Your task to perform on an android device: turn on data saver in the chrome app Image 0: 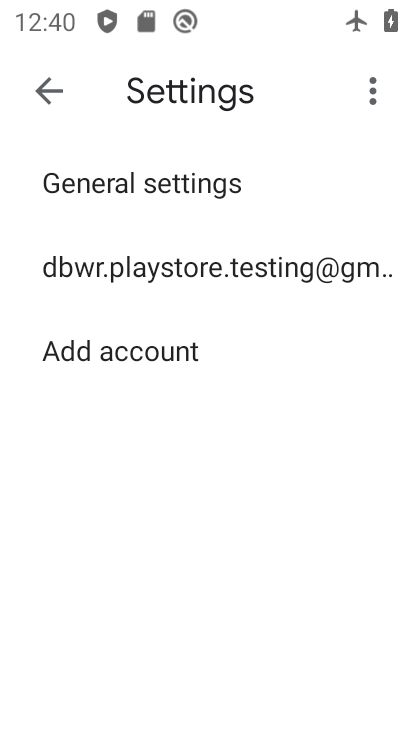
Step 0: click (28, 77)
Your task to perform on an android device: turn on data saver in the chrome app Image 1: 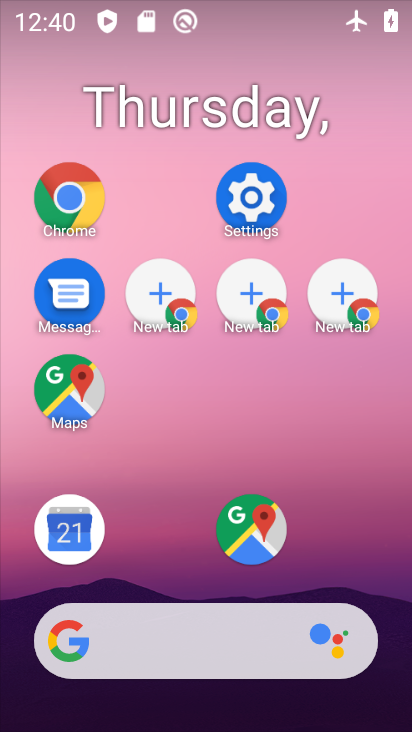
Step 1: drag from (226, 525) to (19, 83)
Your task to perform on an android device: turn on data saver in the chrome app Image 2: 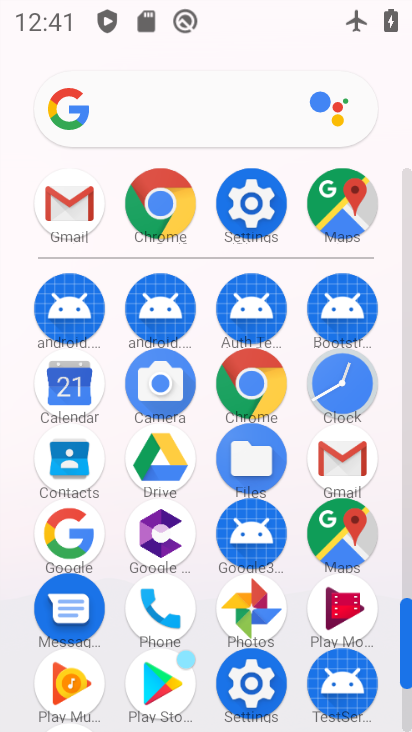
Step 2: click (241, 377)
Your task to perform on an android device: turn on data saver in the chrome app Image 3: 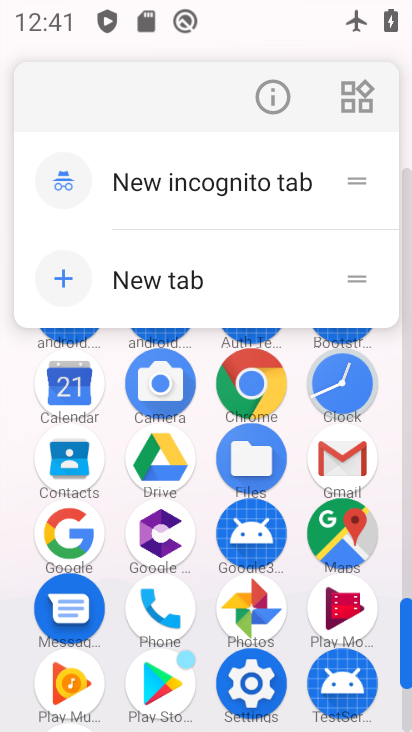
Step 3: click (161, 280)
Your task to perform on an android device: turn on data saver in the chrome app Image 4: 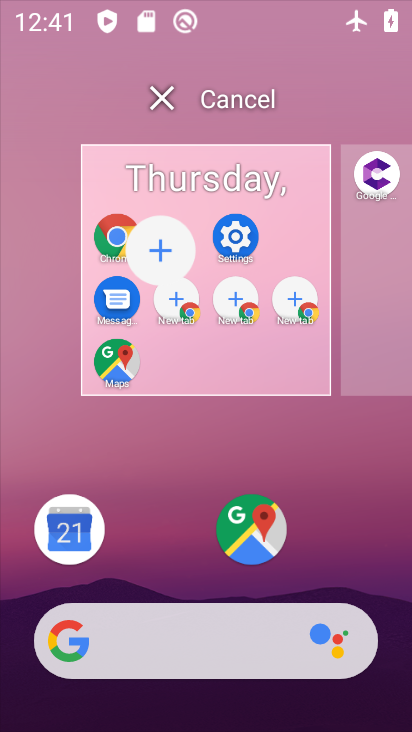
Step 4: click (161, 280)
Your task to perform on an android device: turn on data saver in the chrome app Image 5: 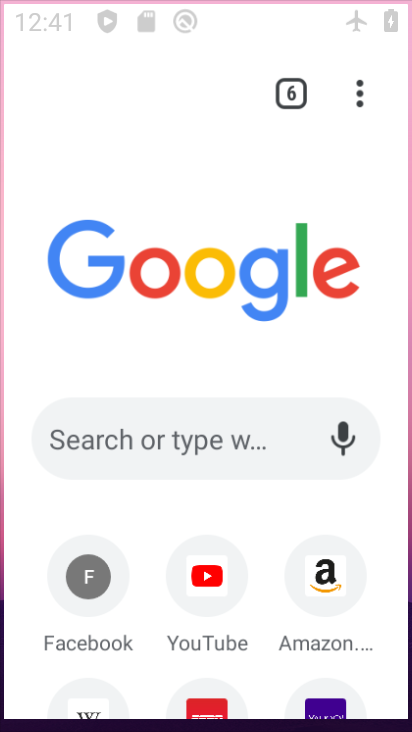
Step 5: click (153, 209)
Your task to perform on an android device: turn on data saver in the chrome app Image 6: 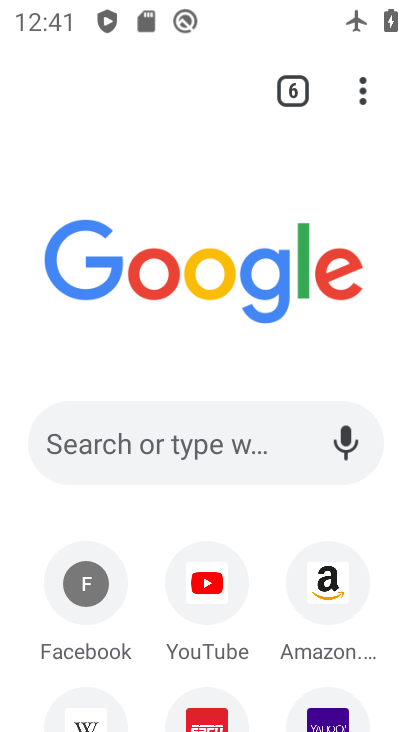
Step 6: drag from (303, 563) to (97, 177)
Your task to perform on an android device: turn on data saver in the chrome app Image 7: 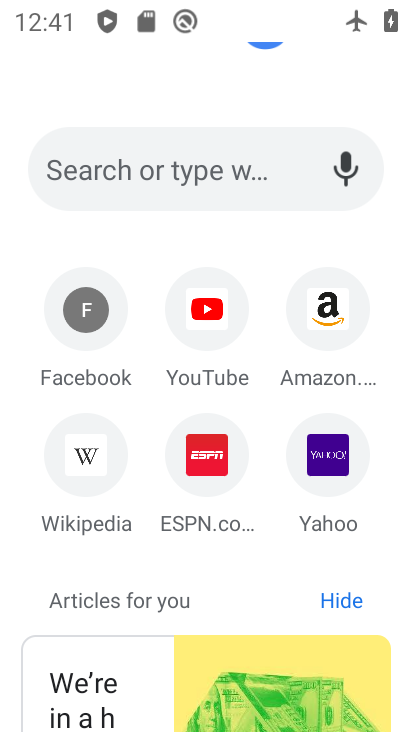
Step 7: drag from (222, 183) to (224, 526)
Your task to perform on an android device: turn on data saver in the chrome app Image 8: 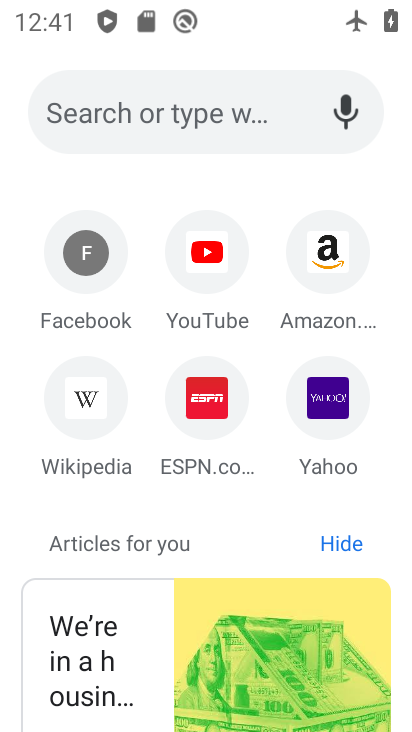
Step 8: drag from (260, 177) to (313, 567)
Your task to perform on an android device: turn on data saver in the chrome app Image 9: 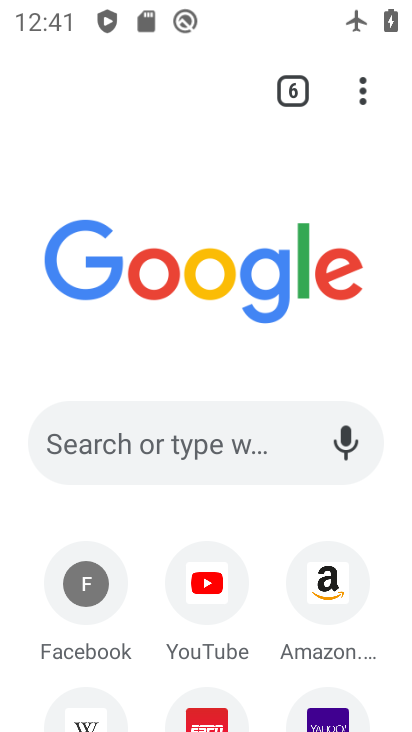
Step 9: click (306, 369)
Your task to perform on an android device: turn on data saver in the chrome app Image 10: 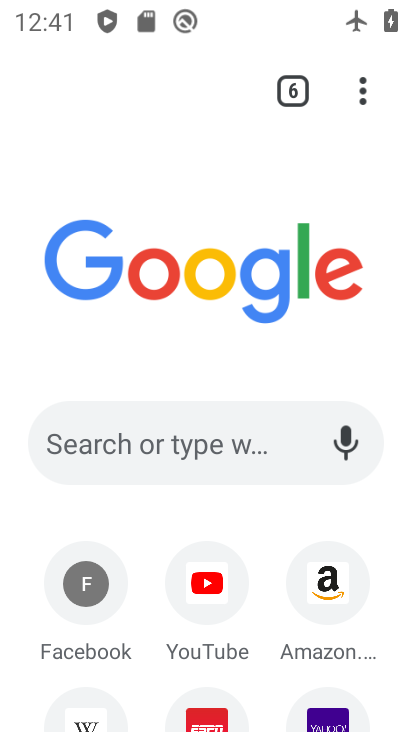
Step 10: click (310, 546)
Your task to perform on an android device: turn on data saver in the chrome app Image 11: 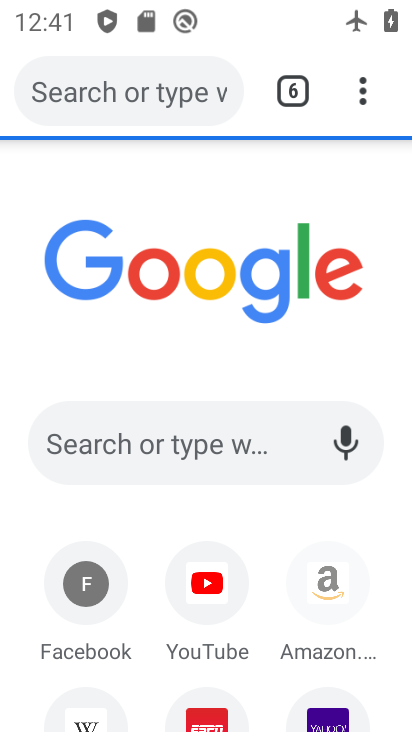
Step 11: drag from (253, 257) to (284, 590)
Your task to perform on an android device: turn on data saver in the chrome app Image 12: 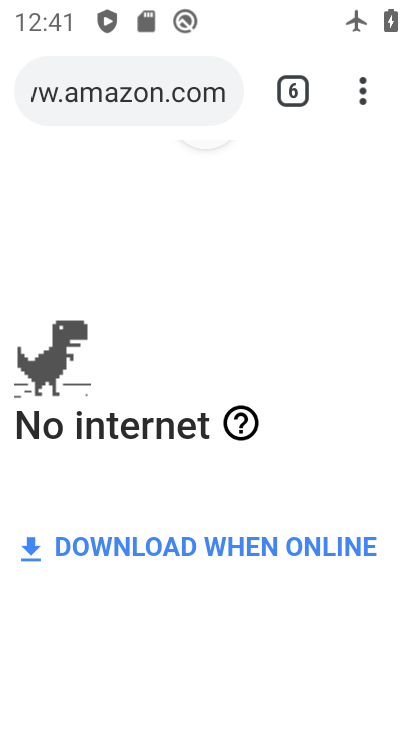
Step 12: drag from (279, 428) to (317, 398)
Your task to perform on an android device: turn on data saver in the chrome app Image 13: 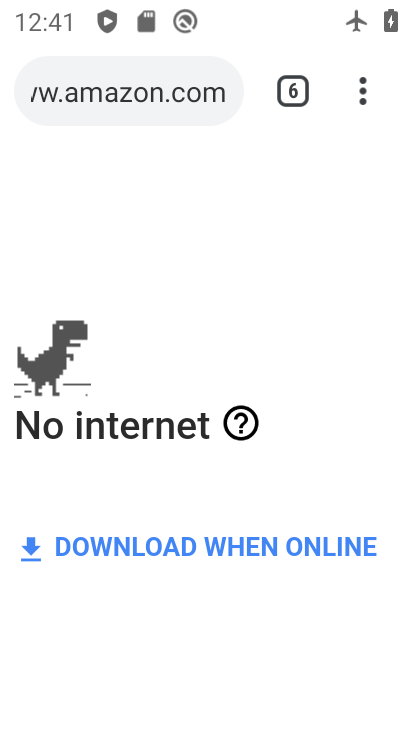
Step 13: drag from (279, 211) to (123, 495)
Your task to perform on an android device: turn on data saver in the chrome app Image 14: 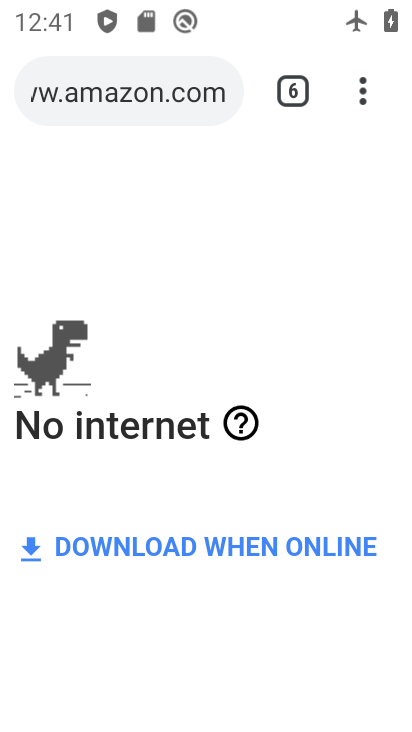
Step 14: drag from (357, 85) to (95, 553)
Your task to perform on an android device: turn on data saver in the chrome app Image 15: 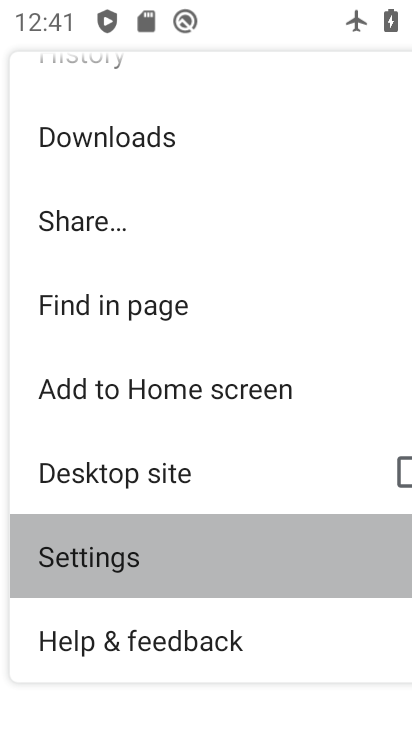
Step 15: click (95, 553)
Your task to perform on an android device: turn on data saver in the chrome app Image 16: 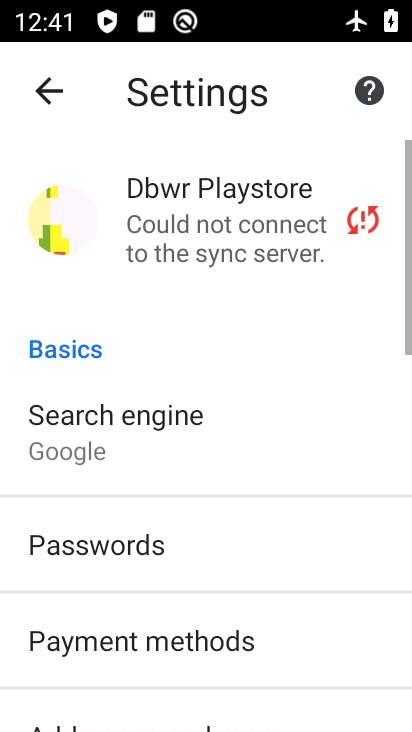
Step 16: click (95, 553)
Your task to perform on an android device: turn on data saver in the chrome app Image 17: 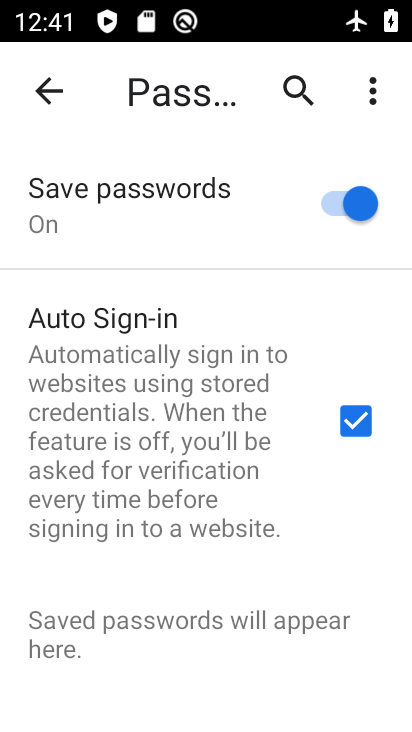
Step 17: task complete